Your task to perform on an android device: move a message to another label in the gmail app Image 0: 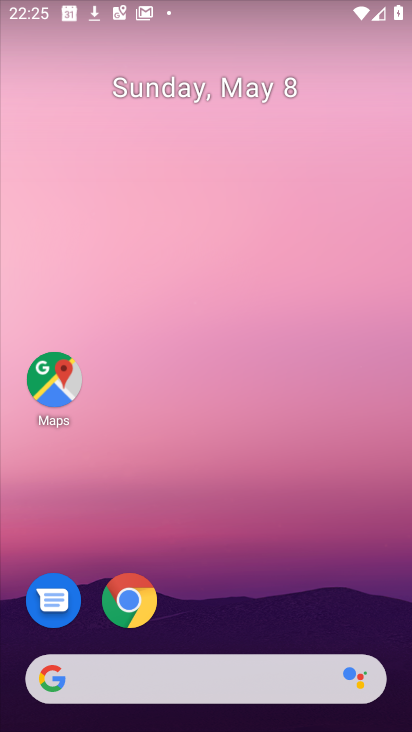
Step 0: drag from (276, 702) to (137, 232)
Your task to perform on an android device: move a message to another label in the gmail app Image 1: 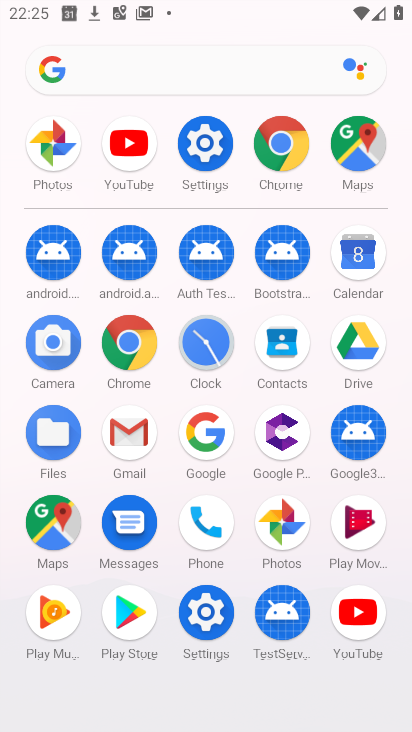
Step 1: click (138, 415)
Your task to perform on an android device: move a message to another label in the gmail app Image 2: 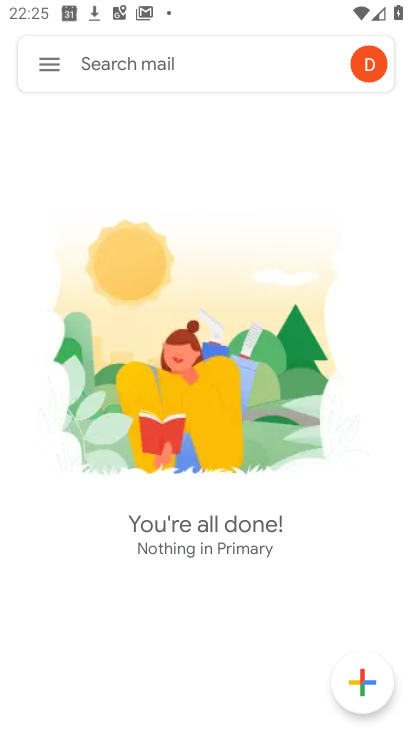
Step 2: click (41, 78)
Your task to perform on an android device: move a message to another label in the gmail app Image 3: 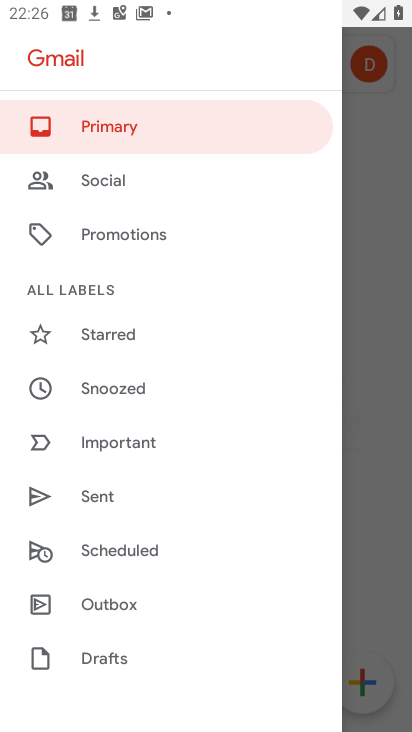
Step 3: drag from (84, 662) to (105, 409)
Your task to perform on an android device: move a message to another label in the gmail app Image 4: 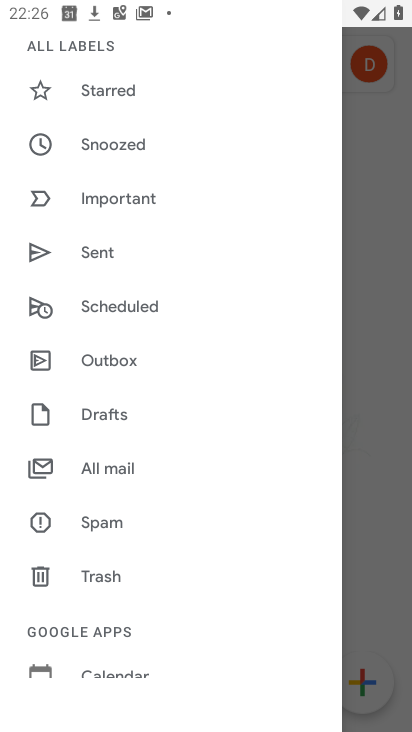
Step 4: drag from (118, 588) to (167, 296)
Your task to perform on an android device: move a message to another label in the gmail app Image 5: 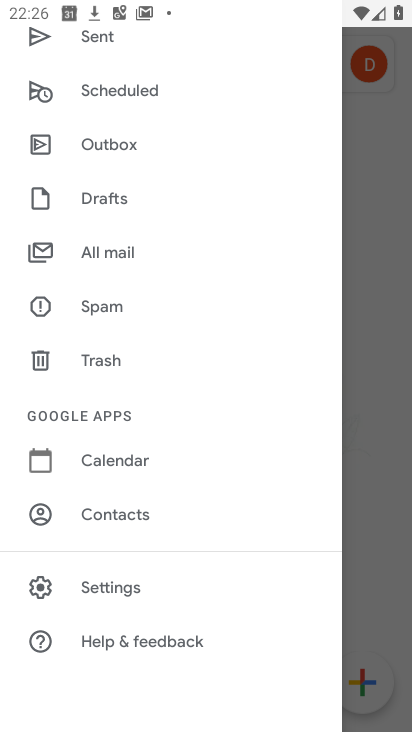
Step 5: click (93, 586)
Your task to perform on an android device: move a message to another label in the gmail app Image 6: 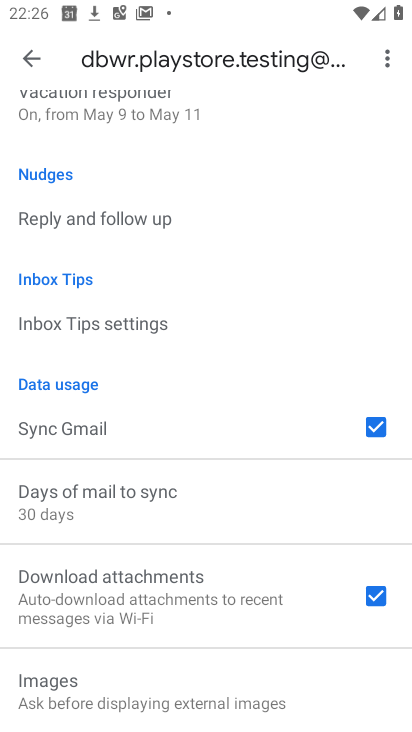
Step 6: drag from (140, 315) to (122, 709)
Your task to perform on an android device: move a message to another label in the gmail app Image 7: 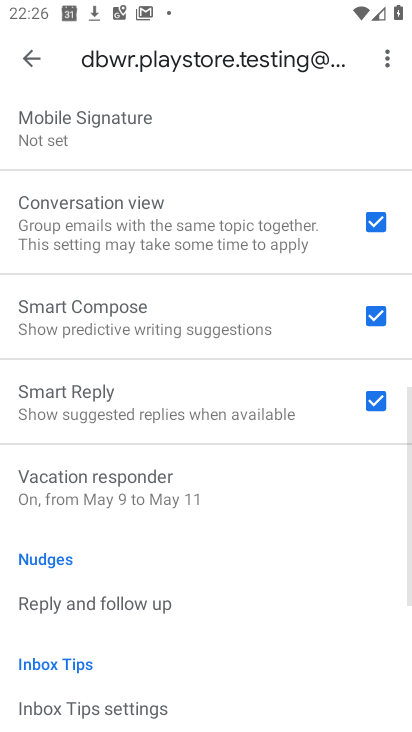
Step 7: drag from (148, 151) to (158, 491)
Your task to perform on an android device: move a message to another label in the gmail app Image 8: 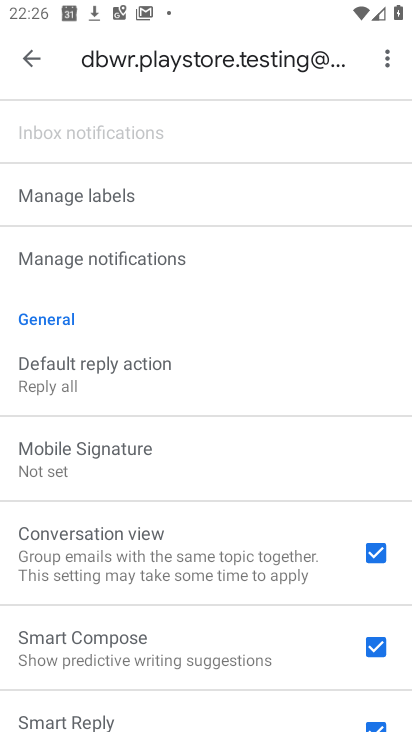
Step 8: click (138, 189)
Your task to perform on an android device: move a message to another label in the gmail app Image 9: 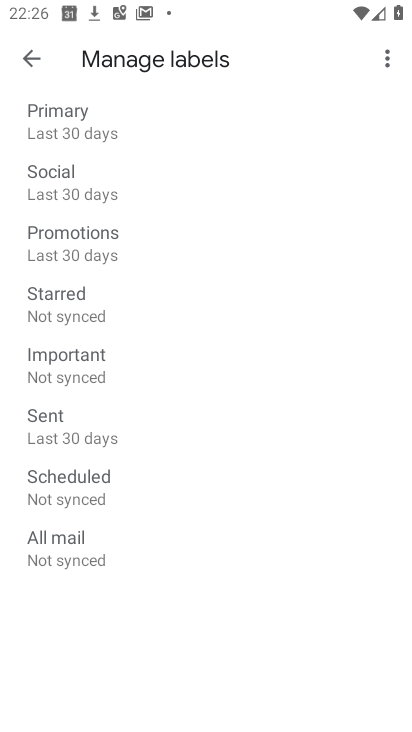
Step 9: click (101, 264)
Your task to perform on an android device: move a message to another label in the gmail app Image 10: 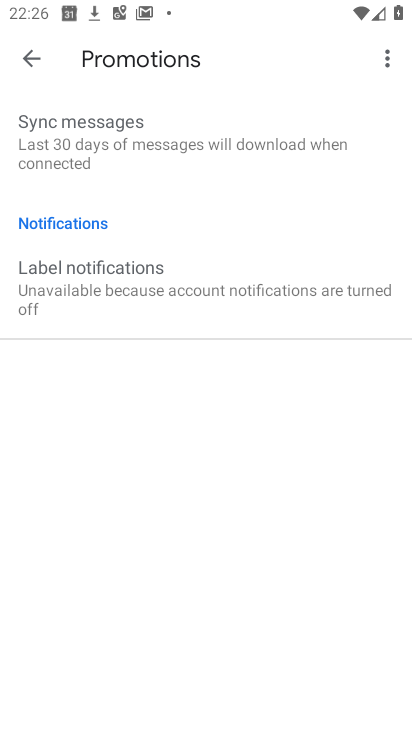
Step 10: task complete